Your task to perform on an android device: allow notifications from all sites in the chrome app Image 0: 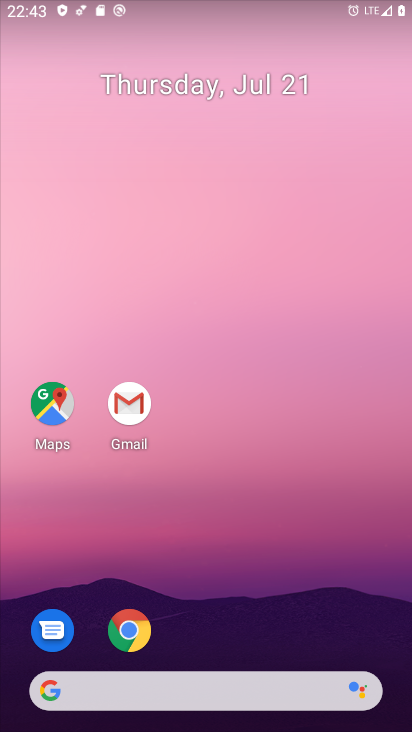
Step 0: drag from (286, 640) to (268, 225)
Your task to perform on an android device: allow notifications from all sites in the chrome app Image 1: 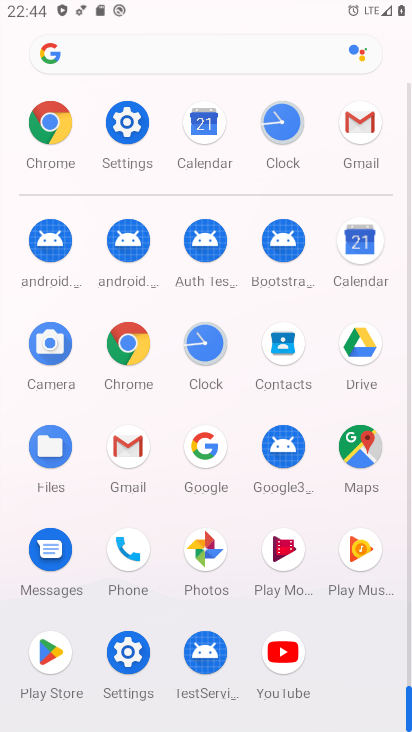
Step 1: click (45, 116)
Your task to perform on an android device: allow notifications from all sites in the chrome app Image 2: 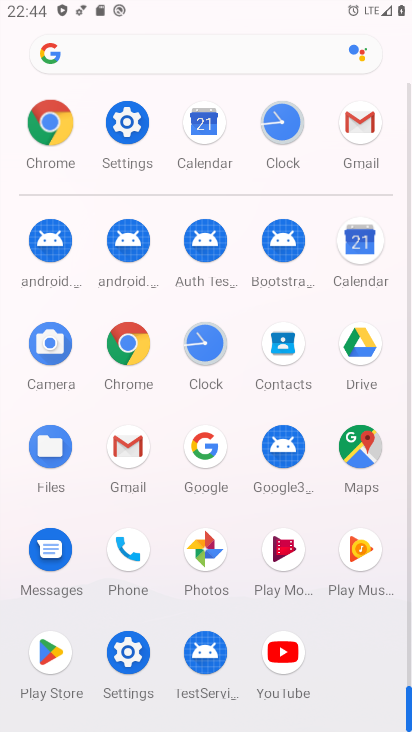
Step 2: click (45, 116)
Your task to perform on an android device: allow notifications from all sites in the chrome app Image 3: 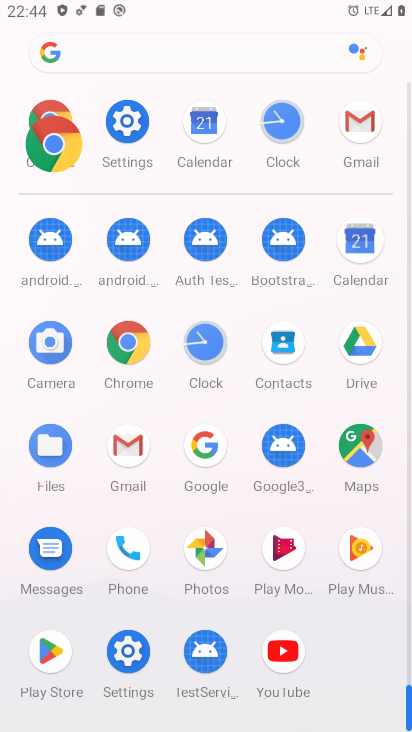
Step 3: click (45, 116)
Your task to perform on an android device: allow notifications from all sites in the chrome app Image 4: 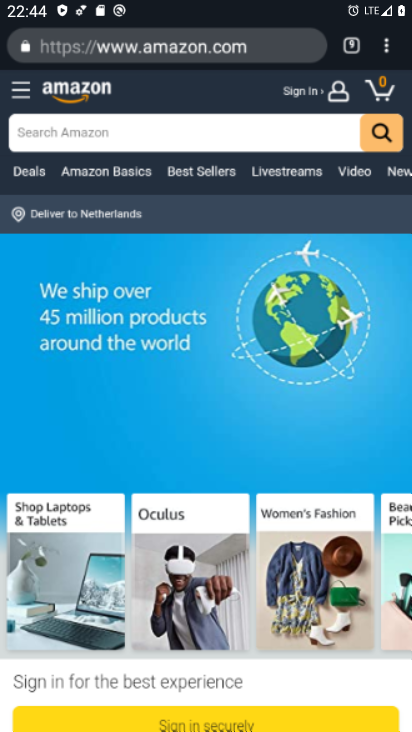
Step 4: drag from (381, 49) to (216, 548)
Your task to perform on an android device: allow notifications from all sites in the chrome app Image 5: 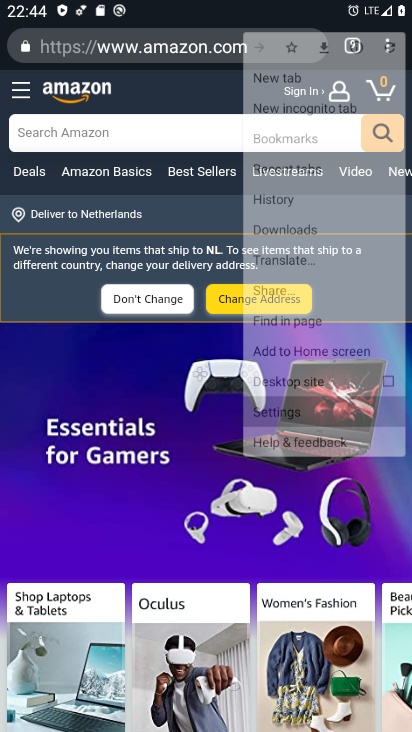
Step 5: click (219, 550)
Your task to perform on an android device: allow notifications from all sites in the chrome app Image 6: 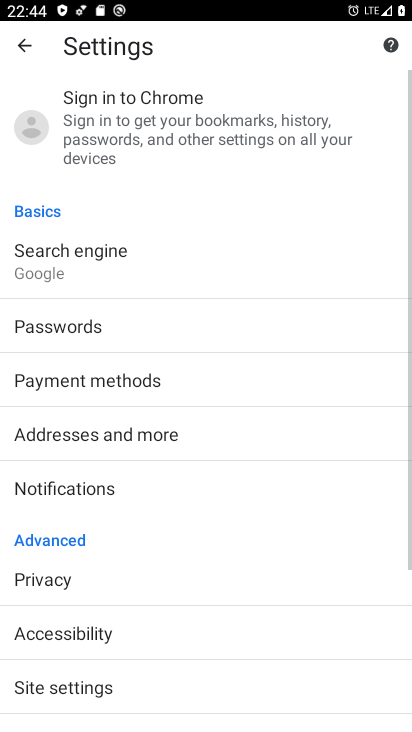
Step 6: drag from (129, 488) to (114, 65)
Your task to perform on an android device: allow notifications from all sites in the chrome app Image 7: 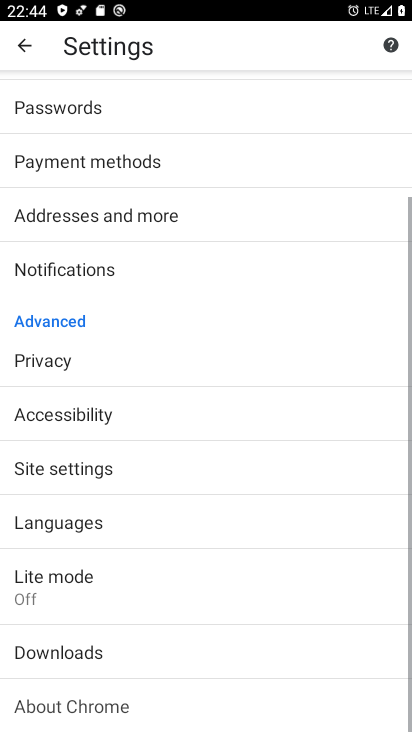
Step 7: drag from (114, 552) to (135, 189)
Your task to perform on an android device: allow notifications from all sites in the chrome app Image 8: 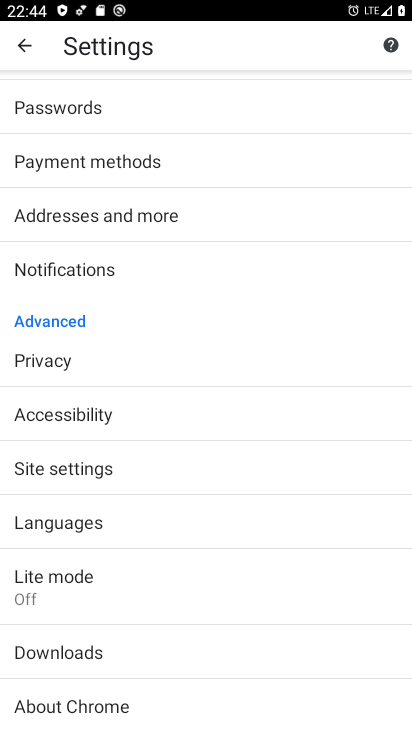
Step 8: click (64, 270)
Your task to perform on an android device: allow notifications from all sites in the chrome app Image 9: 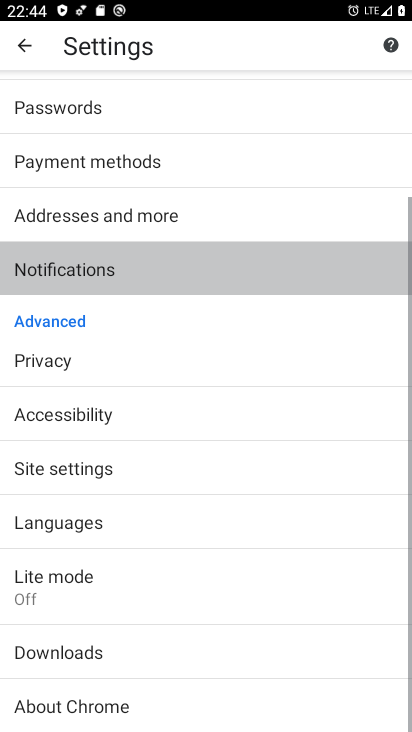
Step 9: click (63, 270)
Your task to perform on an android device: allow notifications from all sites in the chrome app Image 10: 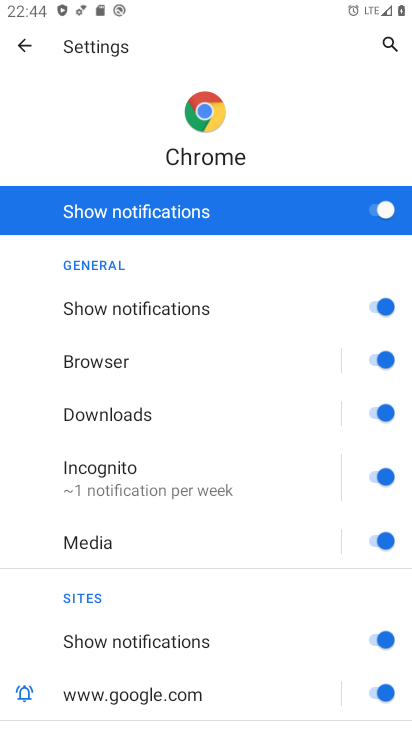
Step 10: click (19, 39)
Your task to perform on an android device: allow notifications from all sites in the chrome app Image 11: 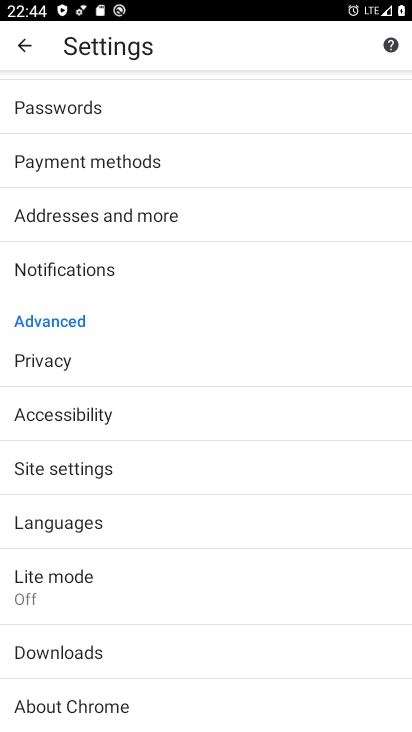
Step 11: click (54, 471)
Your task to perform on an android device: allow notifications from all sites in the chrome app Image 12: 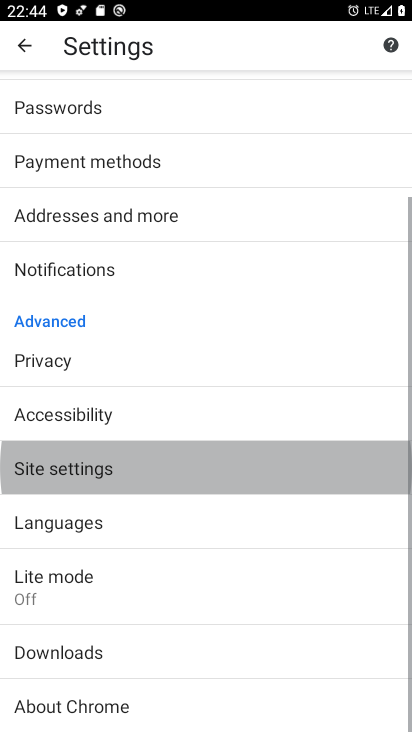
Step 12: click (54, 471)
Your task to perform on an android device: allow notifications from all sites in the chrome app Image 13: 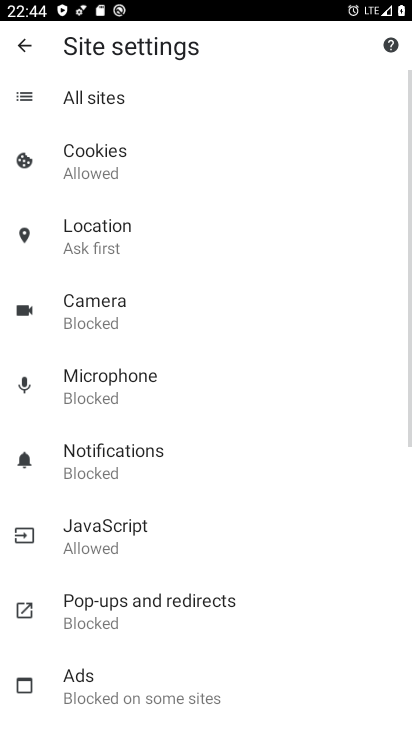
Step 13: click (78, 116)
Your task to perform on an android device: allow notifications from all sites in the chrome app Image 14: 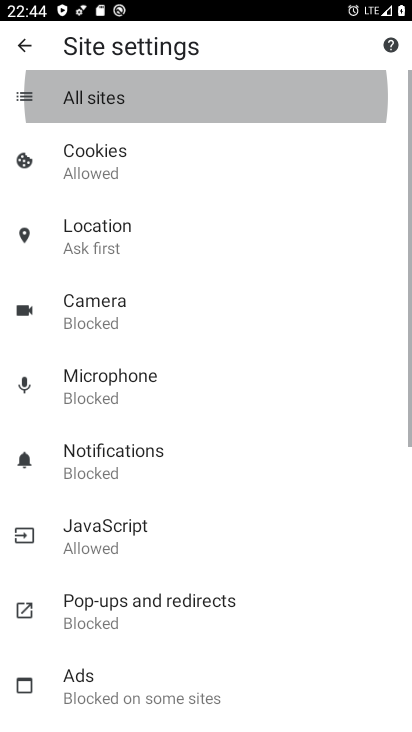
Step 14: click (78, 115)
Your task to perform on an android device: allow notifications from all sites in the chrome app Image 15: 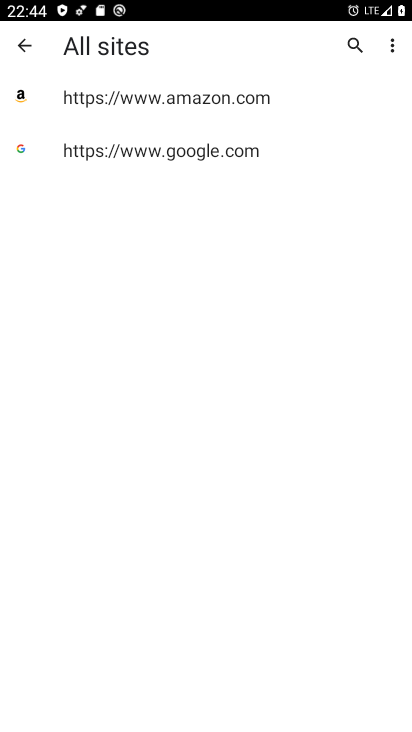
Step 15: click (168, 114)
Your task to perform on an android device: allow notifications from all sites in the chrome app Image 16: 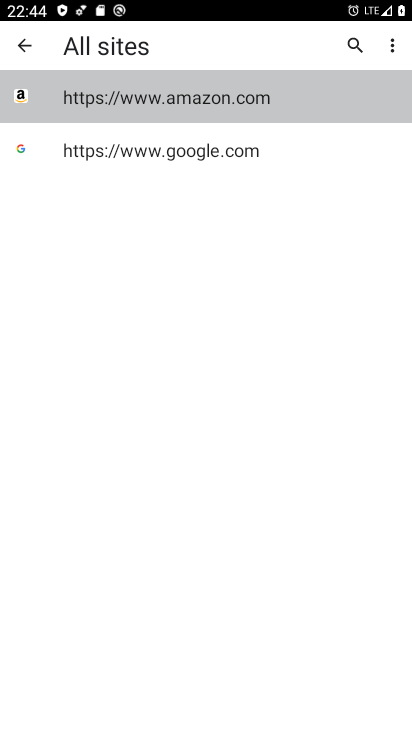
Step 16: click (174, 108)
Your task to perform on an android device: allow notifications from all sites in the chrome app Image 17: 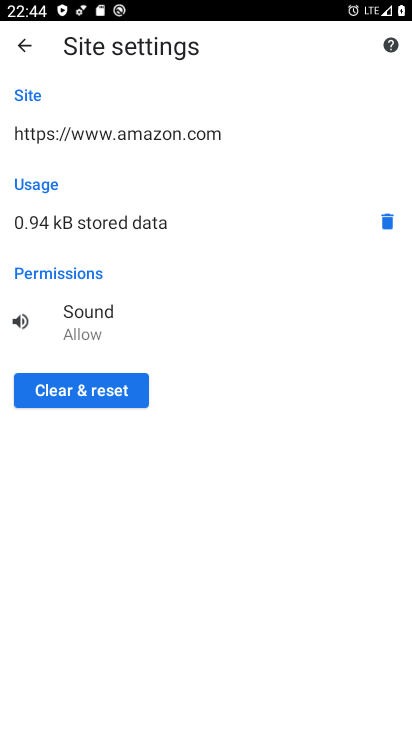
Step 17: click (21, 51)
Your task to perform on an android device: allow notifications from all sites in the chrome app Image 18: 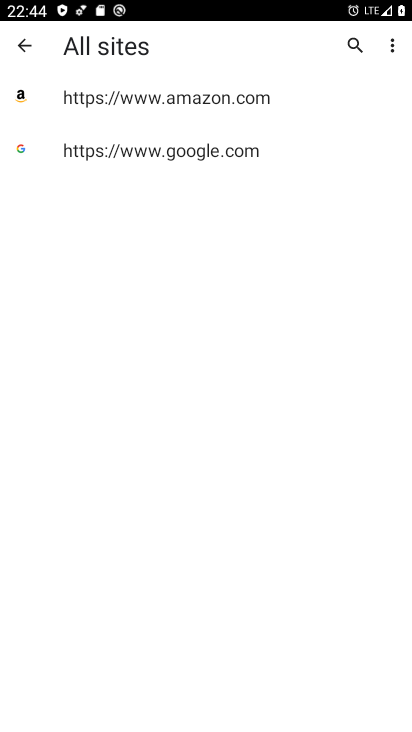
Step 18: click (162, 94)
Your task to perform on an android device: allow notifications from all sites in the chrome app Image 19: 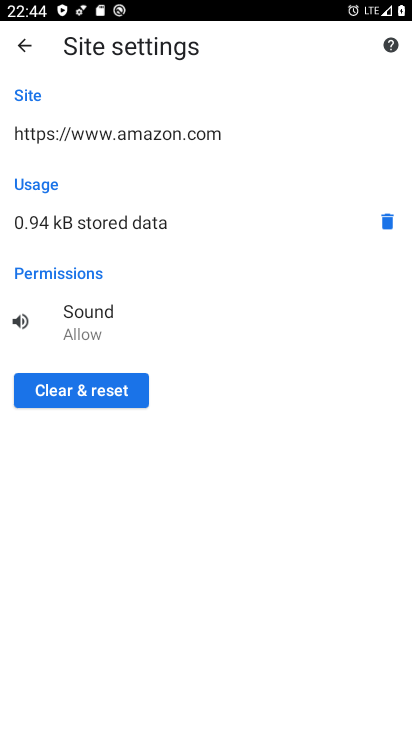
Step 19: click (83, 226)
Your task to perform on an android device: allow notifications from all sites in the chrome app Image 20: 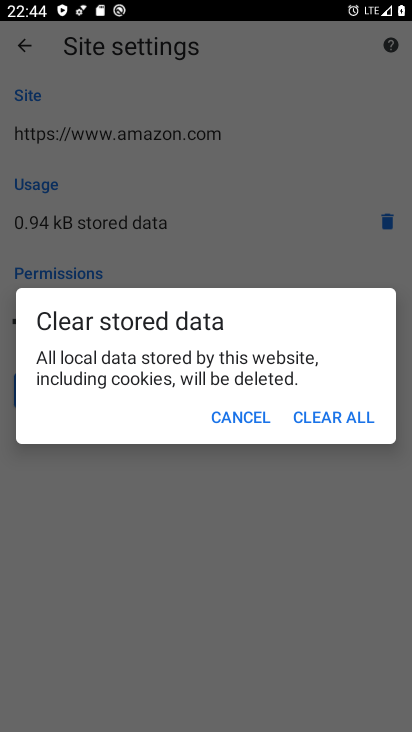
Step 20: click (25, 42)
Your task to perform on an android device: allow notifications from all sites in the chrome app Image 21: 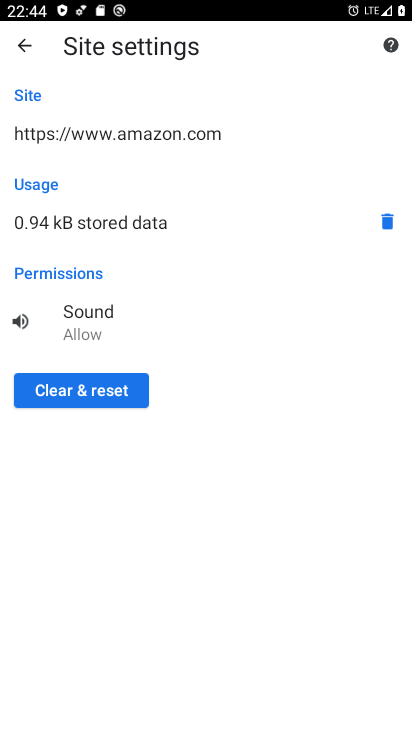
Step 21: click (25, 42)
Your task to perform on an android device: allow notifications from all sites in the chrome app Image 22: 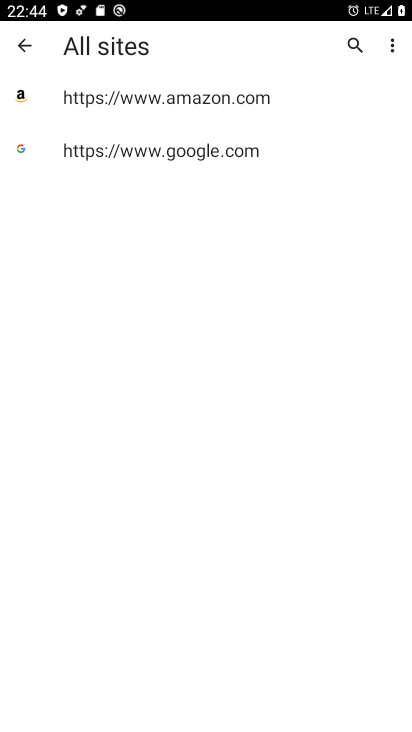
Step 22: click (25, 42)
Your task to perform on an android device: allow notifications from all sites in the chrome app Image 23: 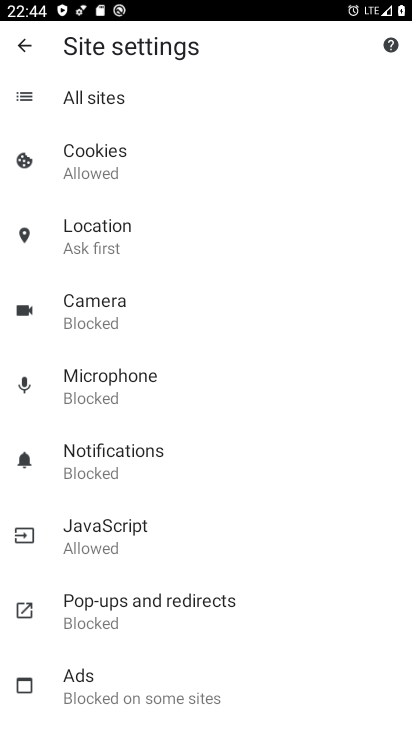
Step 23: click (128, 455)
Your task to perform on an android device: allow notifications from all sites in the chrome app Image 24: 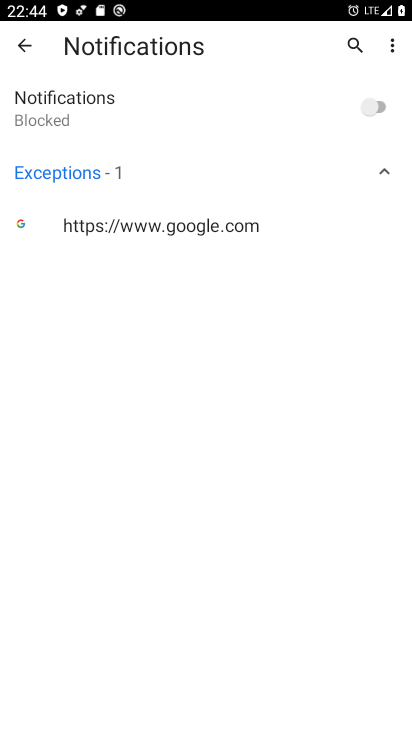
Step 24: click (375, 106)
Your task to perform on an android device: allow notifications from all sites in the chrome app Image 25: 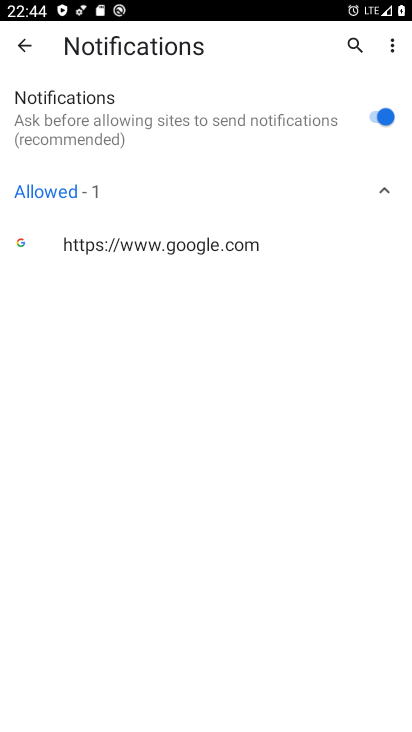
Step 25: task complete